Your task to perform on an android device: turn vacation reply on in the gmail app Image 0: 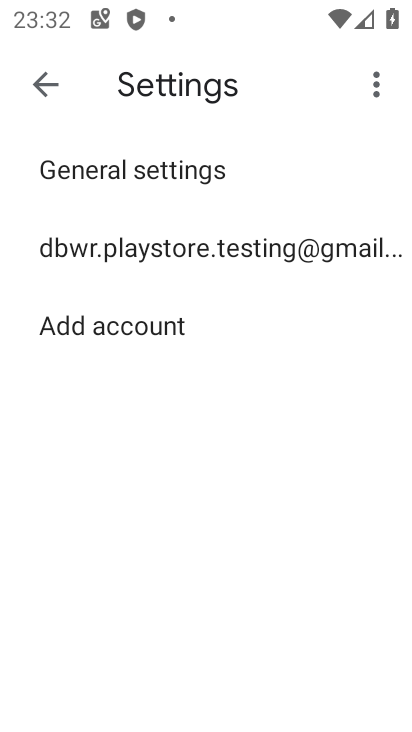
Step 0: press home button
Your task to perform on an android device: turn vacation reply on in the gmail app Image 1: 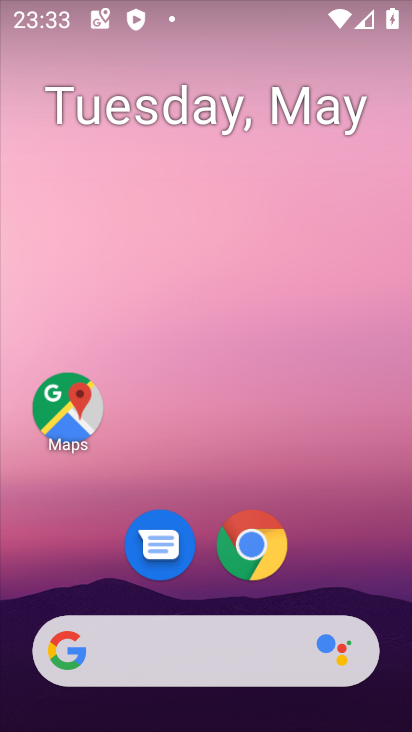
Step 1: drag from (211, 553) to (217, 184)
Your task to perform on an android device: turn vacation reply on in the gmail app Image 2: 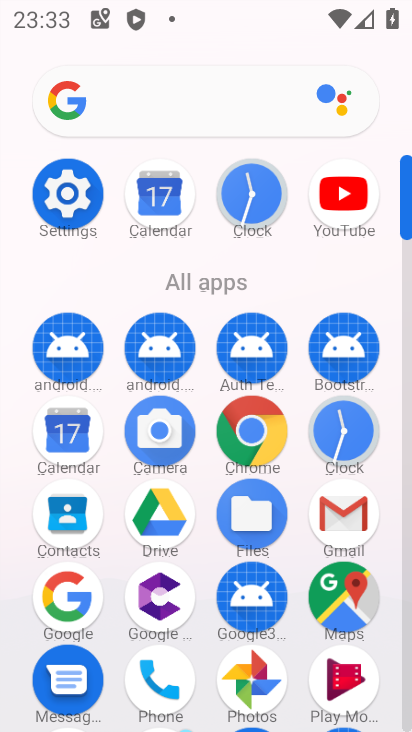
Step 2: click (339, 522)
Your task to perform on an android device: turn vacation reply on in the gmail app Image 3: 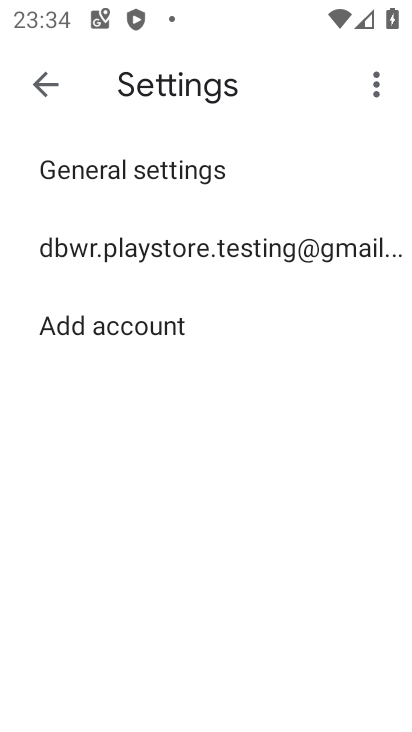
Step 3: click (208, 240)
Your task to perform on an android device: turn vacation reply on in the gmail app Image 4: 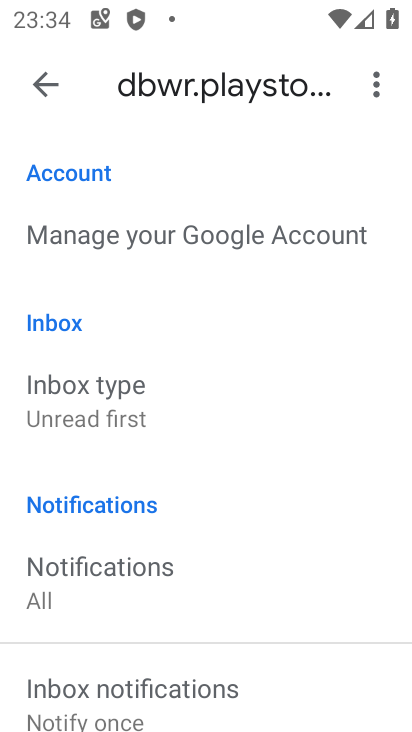
Step 4: drag from (185, 619) to (187, 373)
Your task to perform on an android device: turn vacation reply on in the gmail app Image 5: 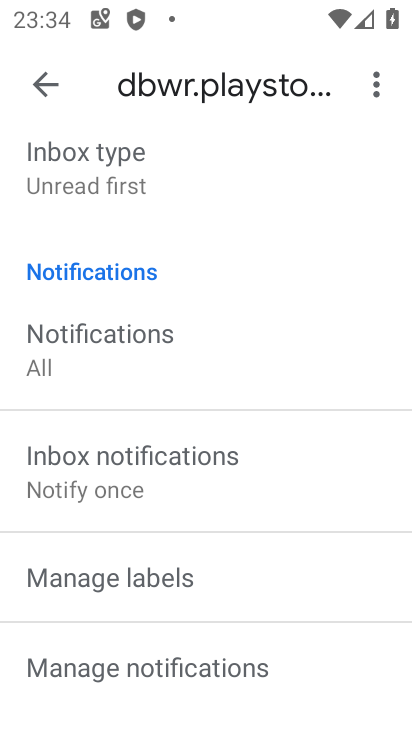
Step 5: drag from (181, 596) to (185, 335)
Your task to perform on an android device: turn vacation reply on in the gmail app Image 6: 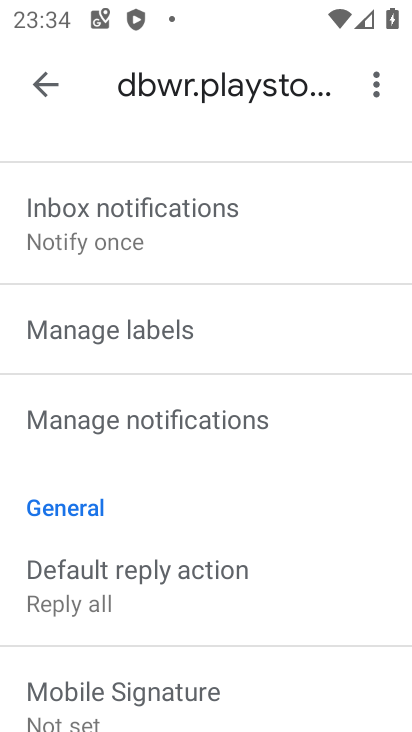
Step 6: drag from (147, 592) to (188, 259)
Your task to perform on an android device: turn vacation reply on in the gmail app Image 7: 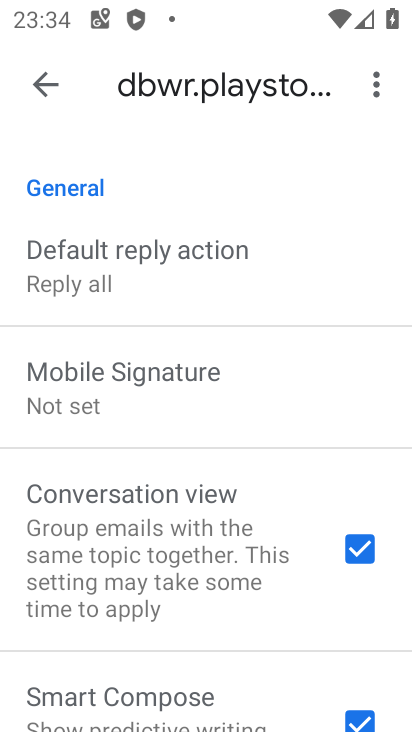
Step 7: drag from (149, 602) to (165, 275)
Your task to perform on an android device: turn vacation reply on in the gmail app Image 8: 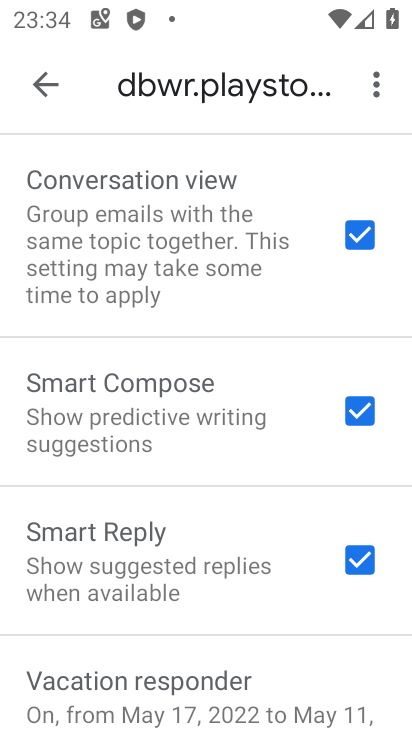
Step 8: drag from (220, 636) to (220, 371)
Your task to perform on an android device: turn vacation reply on in the gmail app Image 9: 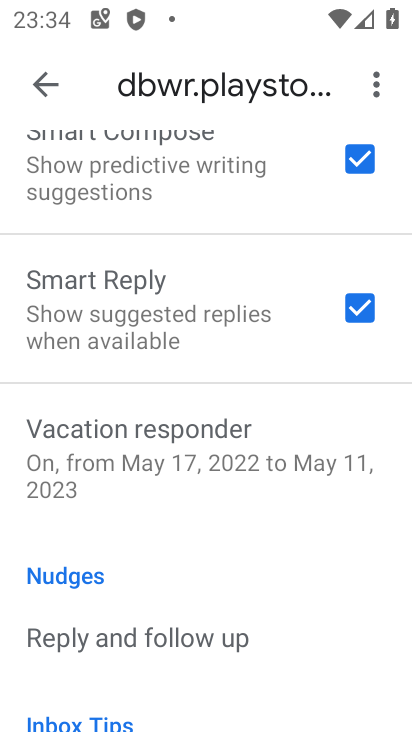
Step 9: click (159, 464)
Your task to perform on an android device: turn vacation reply on in the gmail app Image 10: 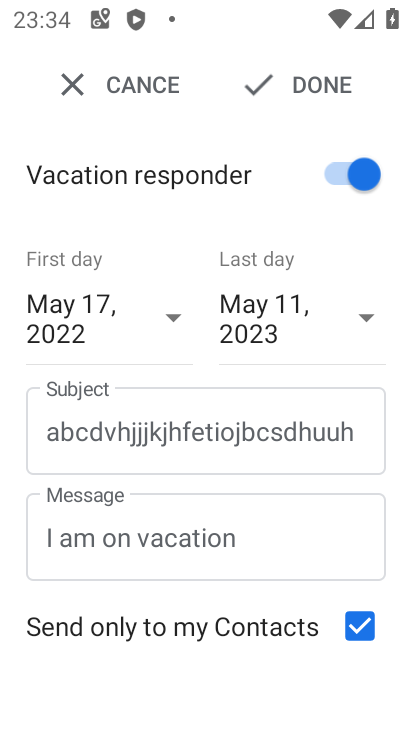
Step 10: task complete